Your task to perform on an android device: see tabs open on other devices in the chrome app Image 0: 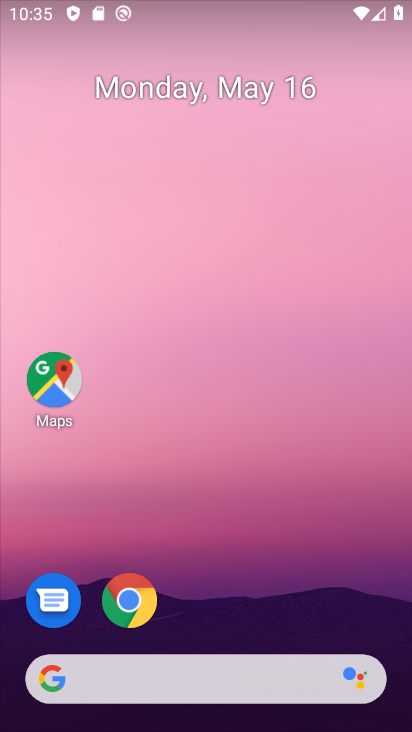
Step 0: click (123, 605)
Your task to perform on an android device: see tabs open on other devices in the chrome app Image 1: 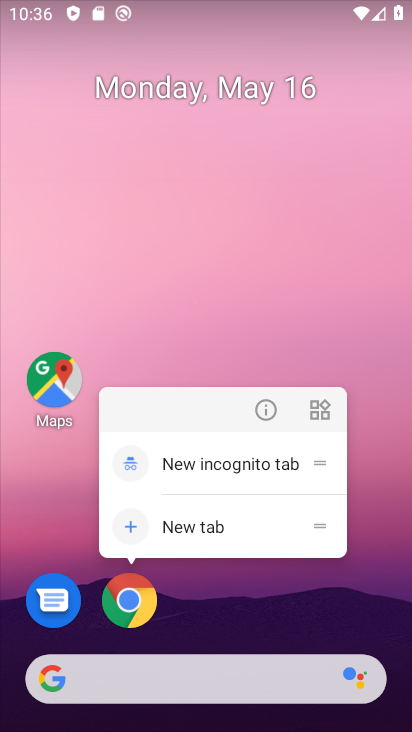
Step 1: click (134, 600)
Your task to perform on an android device: see tabs open on other devices in the chrome app Image 2: 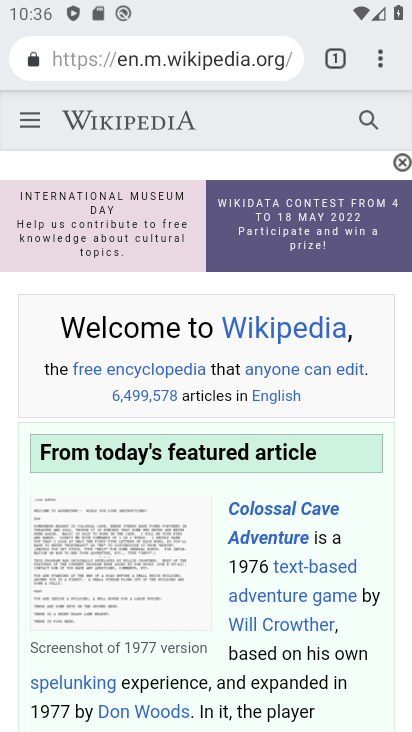
Step 2: click (335, 63)
Your task to perform on an android device: see tabs open on other devices in the chrome app Image 3: 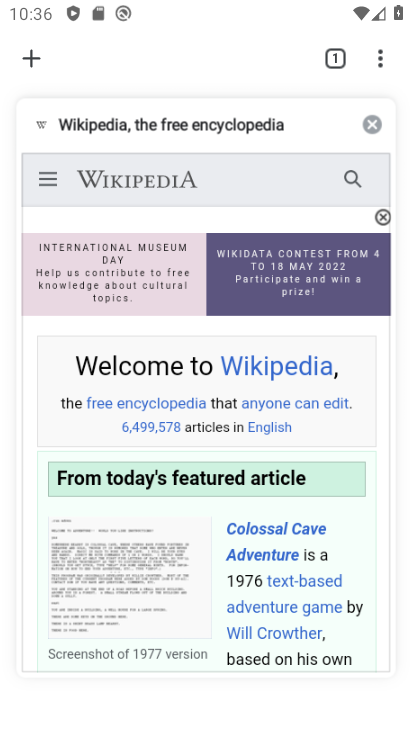
Step 3: task complete